Your task to perform on an android device: empty trash in google photos Image 0: 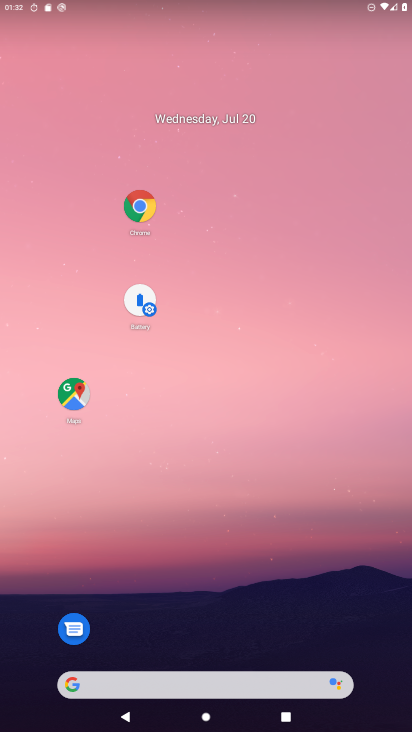
Step 0: click (405, 416)
Your task to perform on an android device: empty trash in google photos Image 1: 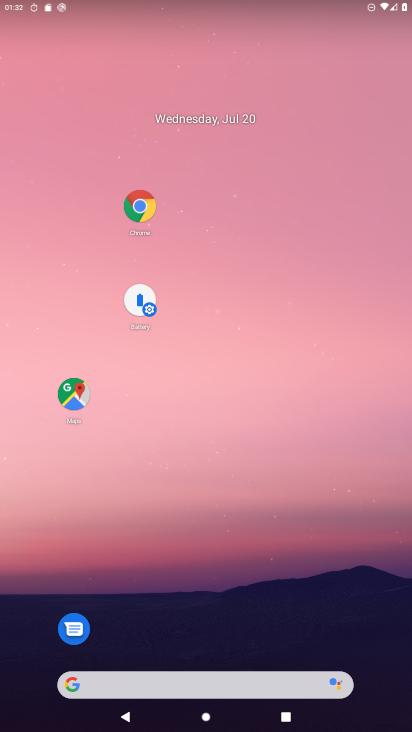
Step 1: drag from (178, 609) to (221, 157)
Your task to perform on an android device: empty trash in google photos Image 2: 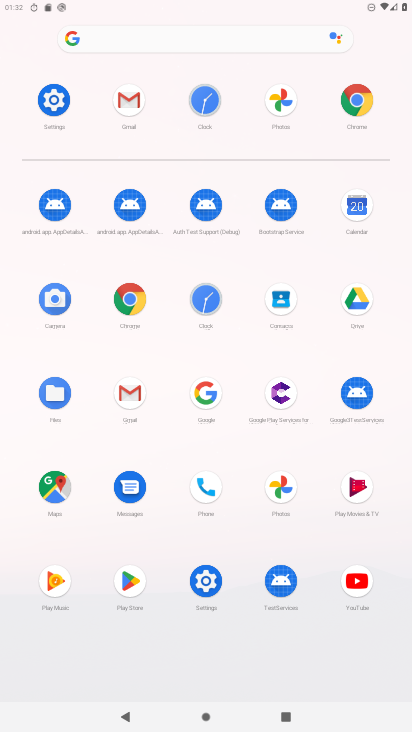
Step 2: click (275, 487)
Your task to perform on an android device: empty trash in google photos Image 3: 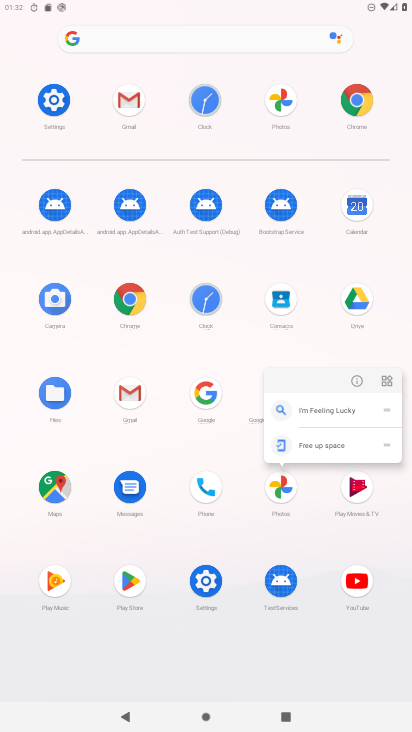
Step 3: click (358, 382)
Your task to perform on an android device: empty trash in google photos Image 4: 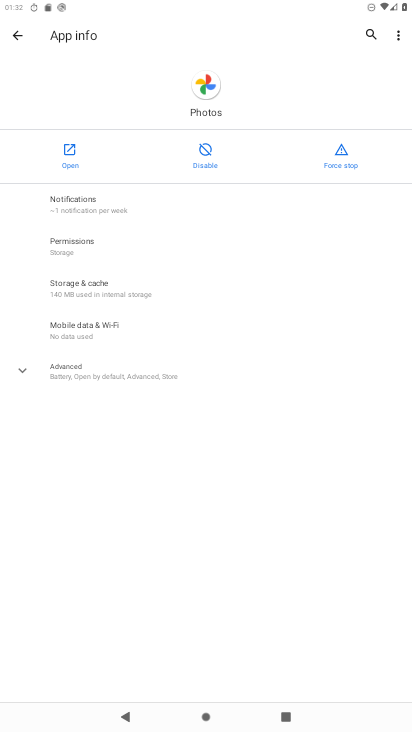
Step 4: click (54, 144)
Your task to perform on an android device: empty trash in google photos Image 5: 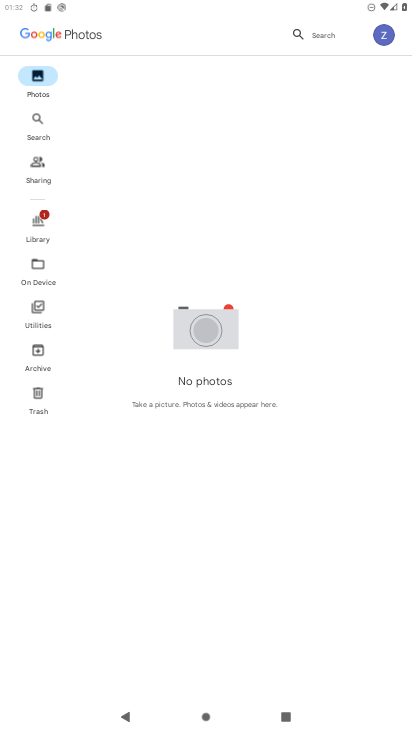
Step 5: click (37, 395)
Your task to perform on an android device: empty trash in google photos Image 6: 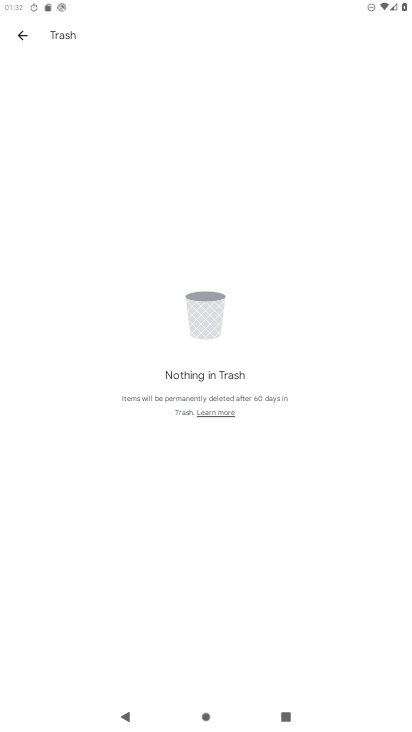
Step 6: task complete